Your task to perform on an android device: Go to calendar. Show me events next week Image 0: 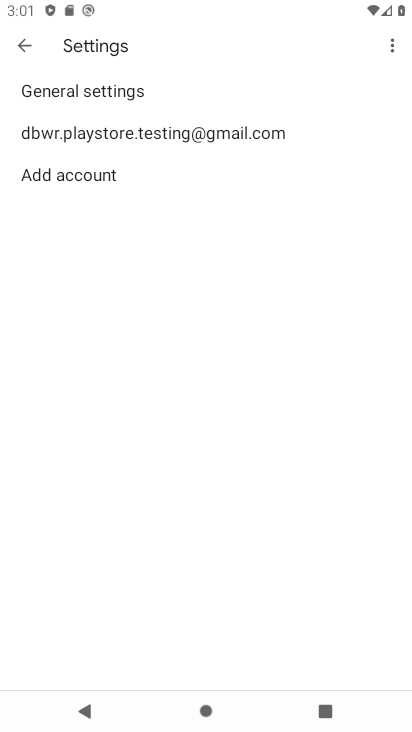
Step 0: press back button
Your task to perform on an android device: Go to calendar. Show me events next week Image 1: 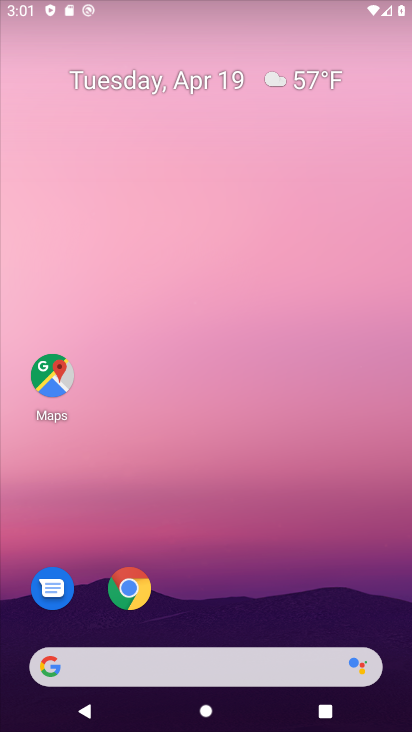
Step 1: drag from (117, 603) to (214, 268)
Your task to perform on an android device: Go to calendar. Show me events next week Image 2: 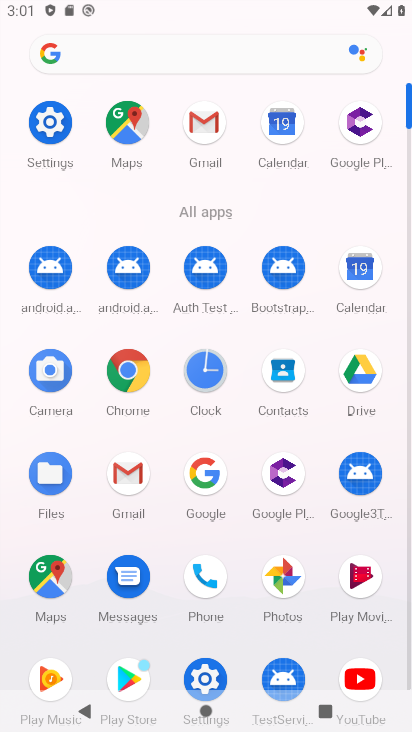
Step 2: click (355, 265)
Your task to perform on an android device: Go to calendar. Show me events next week Image 3: 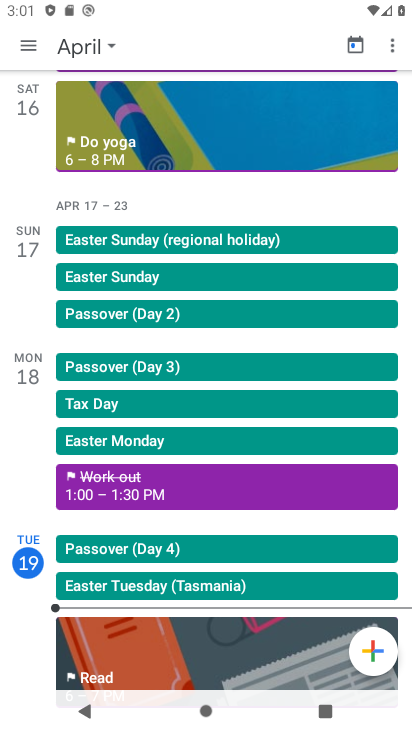
Step 3: click (33, 44)
Your task to perform on an android device: Go to calendar. Show me events next week Image 4: 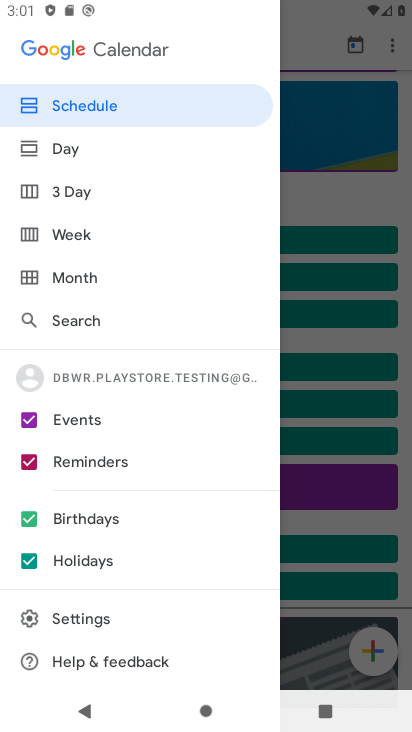
Step 4: click (97, 234)
Your task to perform on an android device: Go to calendar. Show me events next week Image 5: 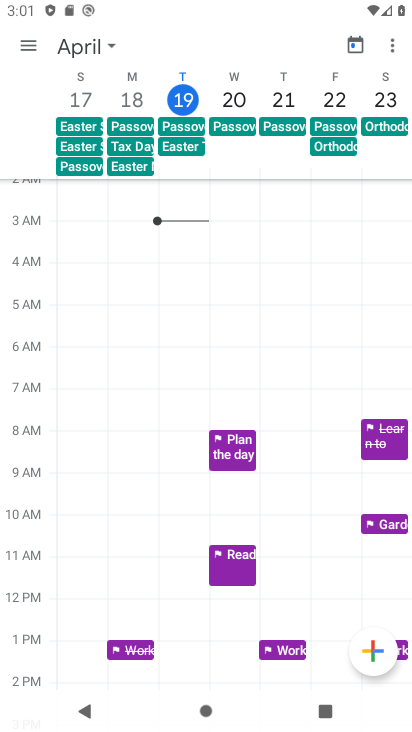
Step 5: drag from (372, 177) to (48, 162)
Your task to perform on an android device: Go to calendar. Show me events next week Image 6: 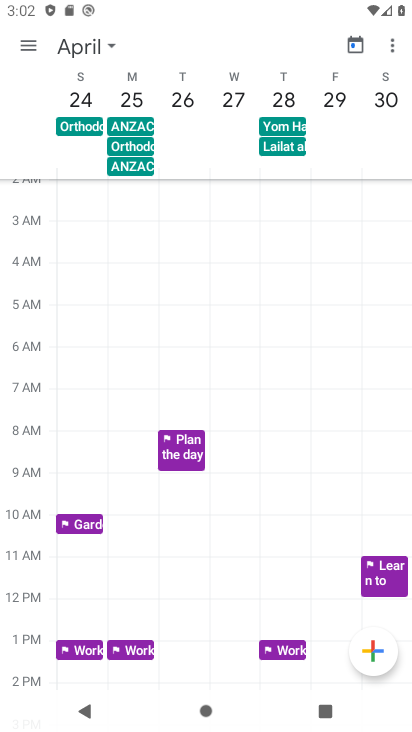
Step 6: click (14, 42)
Your task to perform on an android device: Go to calendar. Show me events next week Image 7: 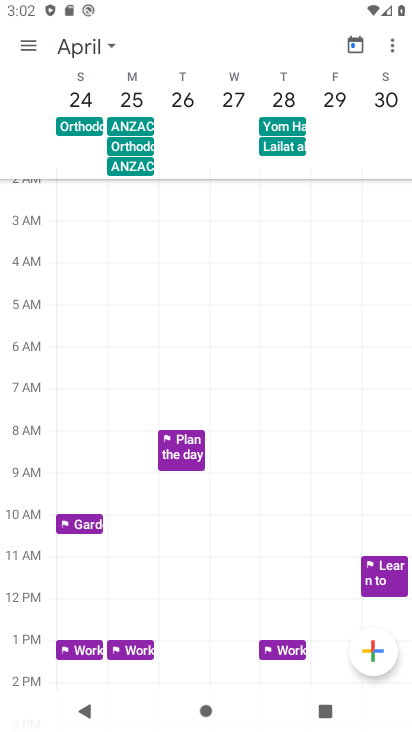
Step 7: click (37, 50)
Your task to perform on an android device: Go to calendar. Show me events next week Image 8: 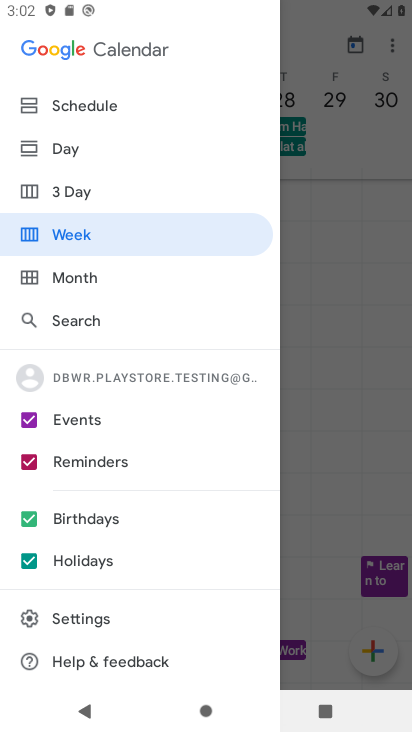
Step 8: click (29, 456)
Your task to perform on an android device: Go to calendar. Show me events next week Image 9: 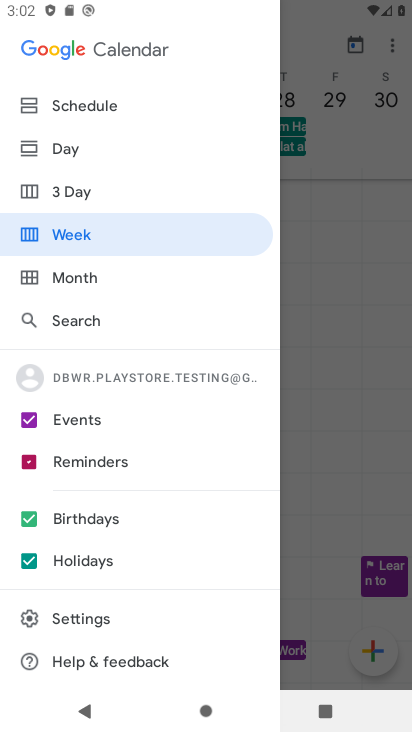
Step 9: click (29, 523)
Your task to perform on an android device: Go to calendar. Show me events next week Image 10: 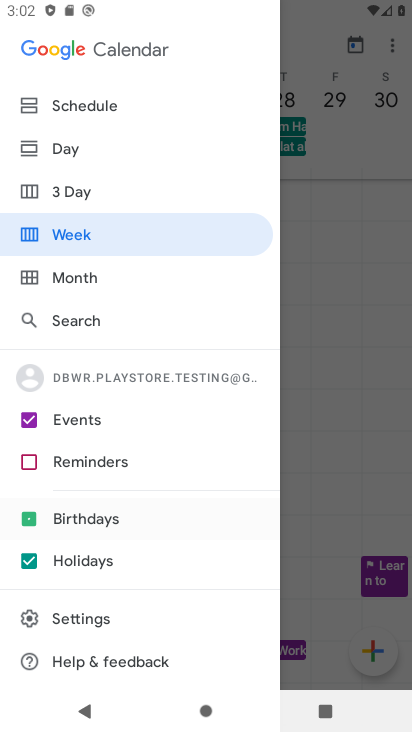
Step 10: click (26, 560)
Your task to perform on an android device: Go to calendar. Show me events next week Image 11: 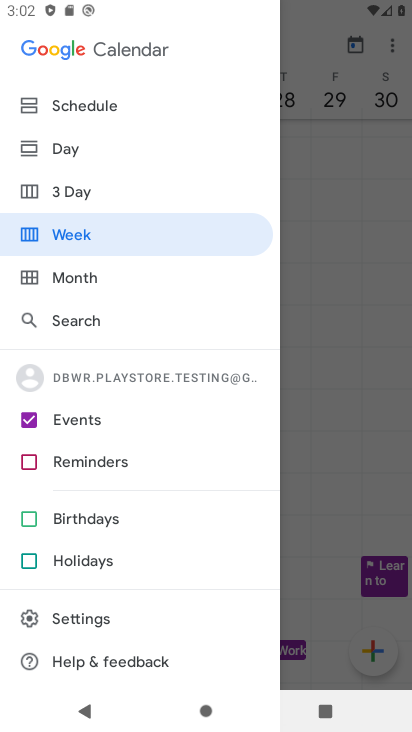
Step 11: click (346, 211)
Your task to perform on an android device: Go to calendar. Show me events next week Image 12: 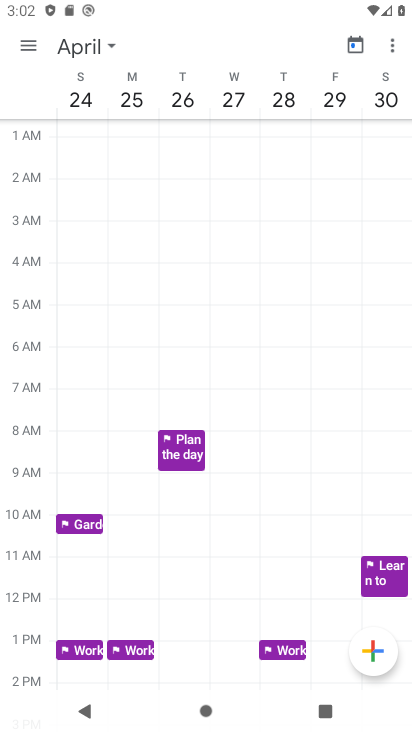
Step 12: task complete